Your task to perform on an android device: read, delete, or share a saved page in the chrome app Image 0: 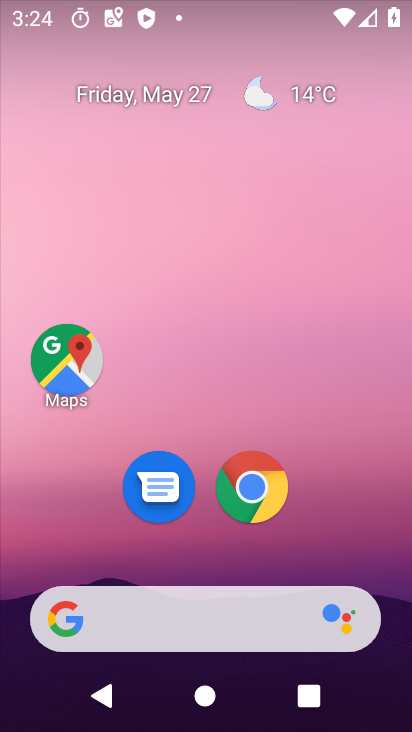
Step 0: click (263, 494)
Your task to perform on an android device: read, delete, or share a saved page in the chrome app Image 1: 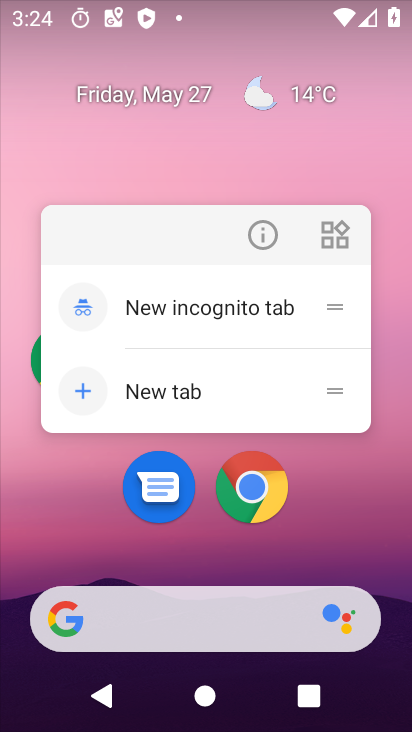
Step 1: click (248, 487)
Your task to perform on an android device: read, delete, or share a saved page in the chrome app Image 2: 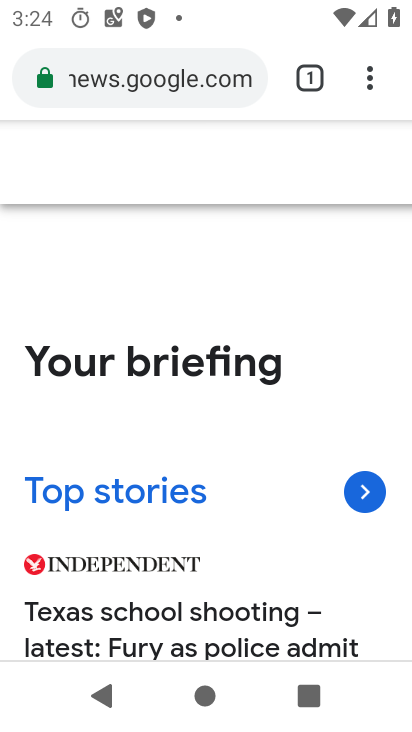
Step 2: task complete